Your task to perform on an android device: Check the news Image 0: 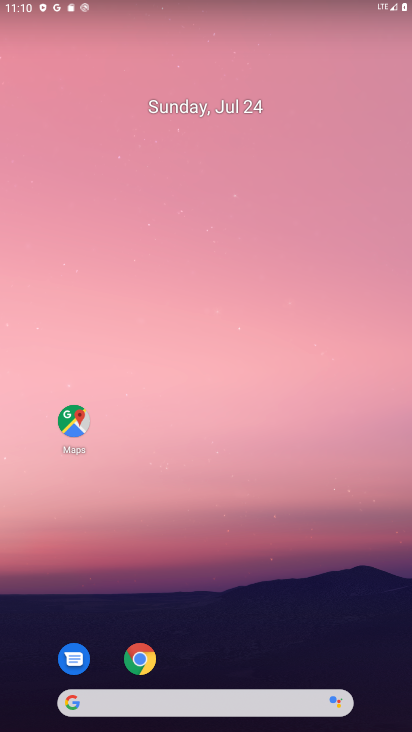
Step 0: click (144, 660)
Your task to perform on an android device: Check the news Image 1: 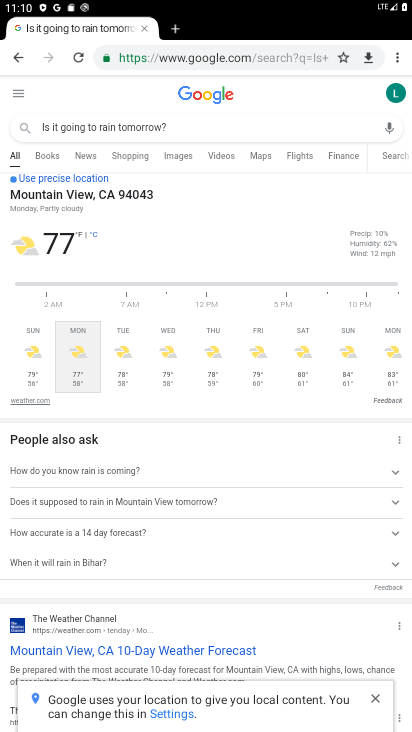
Step 1: click (177, 26)
Your task to perform on an android device: Check the news Image 2: 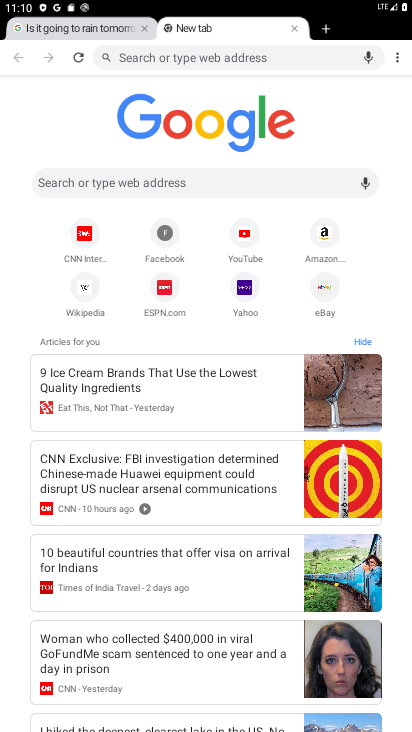
Step 2: click (169, 55)
Your task to perform on an android device: Check the news Image 3: 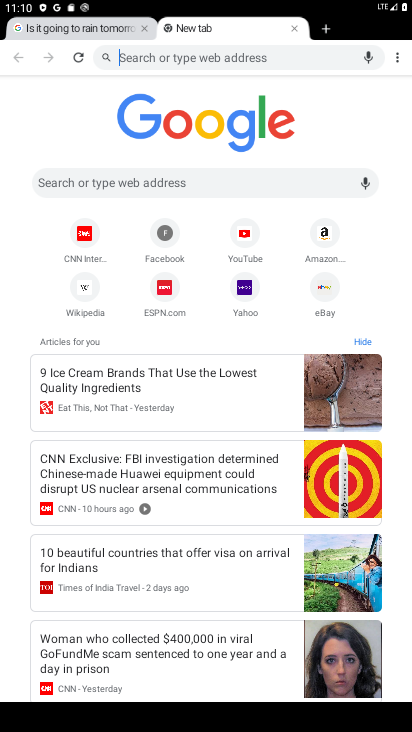
Step 3: type "News"
Your task to perform on an android device: Check the news Image 4: 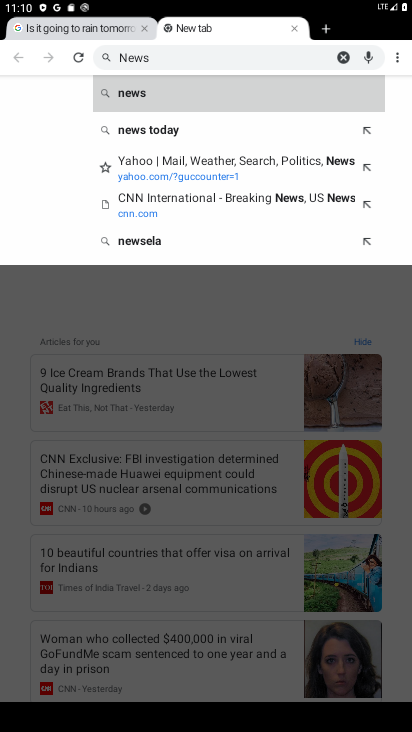
Step 4: click (248, 103)
Your task to perform on an android device: Check the news Image 5: 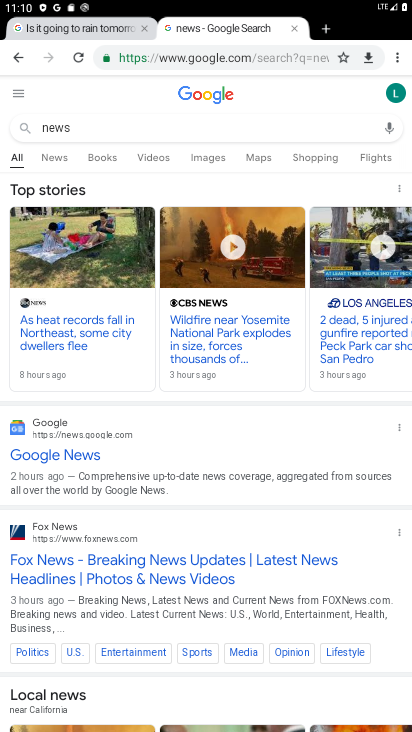
Step 5: task complete